Your task to perform on an android device: Open Google Image 0: 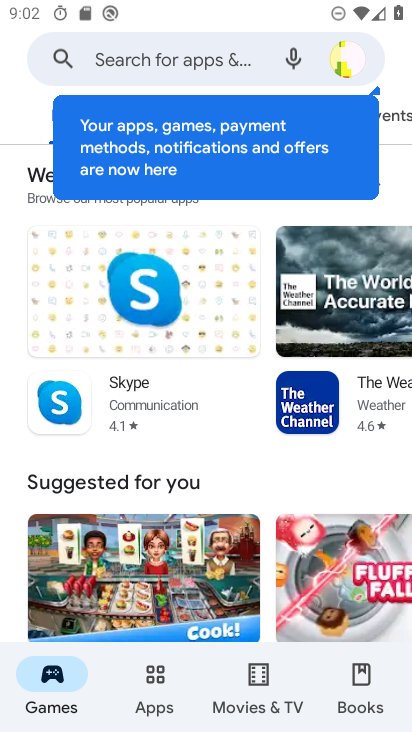
Step 0: press home button
Your task to perform on an android device: Open Google Image 1: 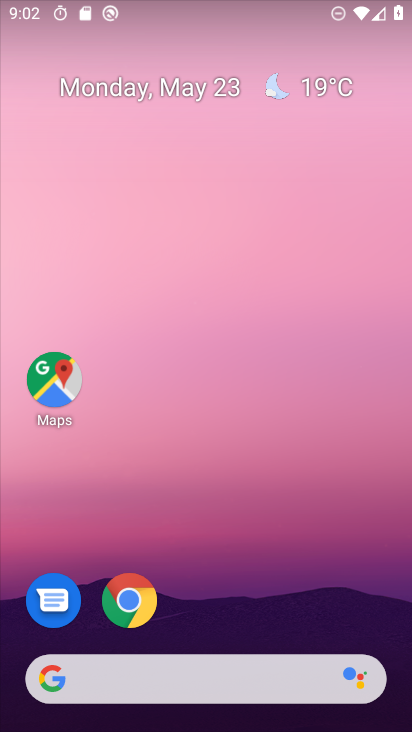
Step 1: click (50, 682)
Your task to perform on an android device: Open Google Image 2: 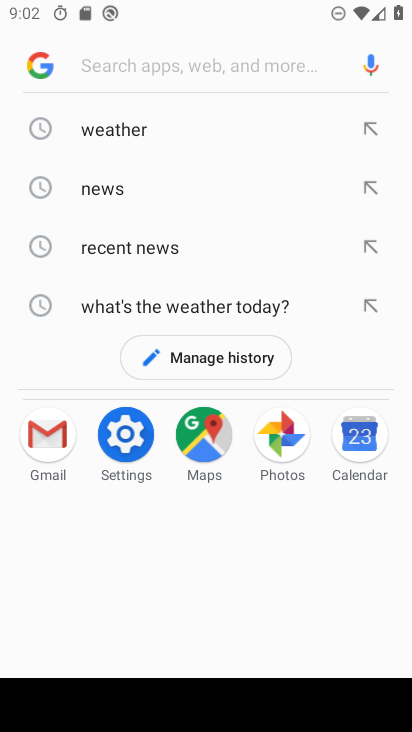
Step 2: click (36, 68)
Your task to perform on an android device: Open Google Image 3: 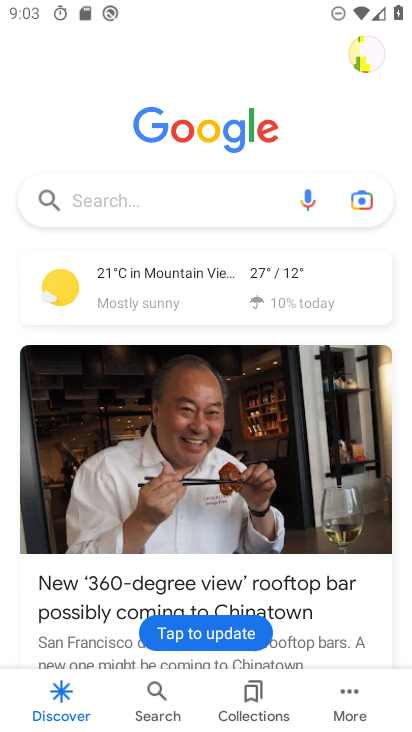
Step 3: task complete